Your task to perform on an android device: Search for the best rated coffee table on Target. Image 0: 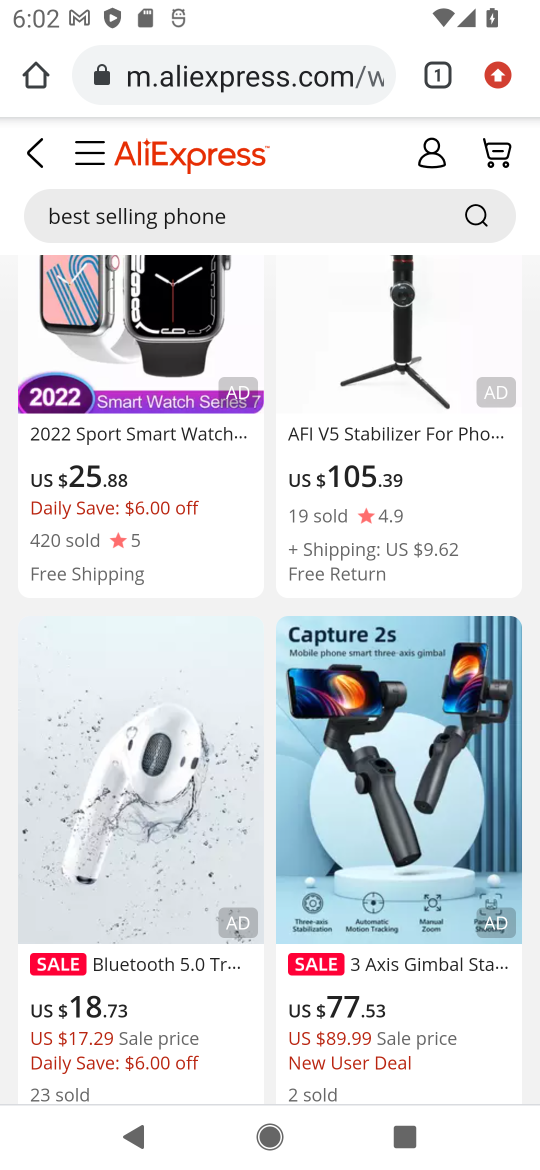
Step 0: click (307, 67)
Your task to perform on an android device: Search for the best rated coffee table on Target. Image 1: 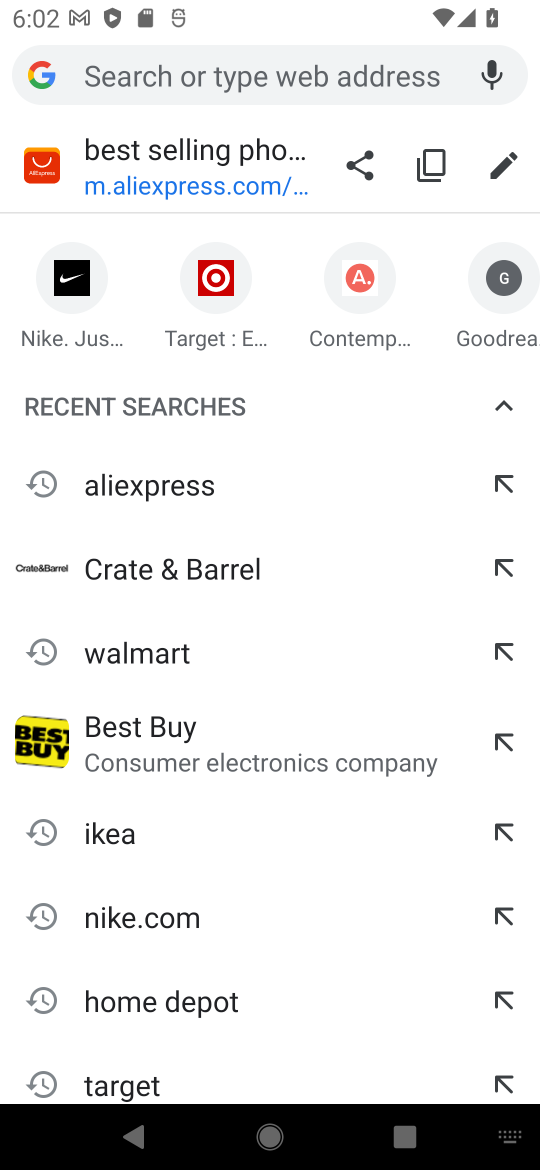
Step 1: type "target"
Your task to perform on an android device: Search for the best rated coffee table on Target. Image 2: 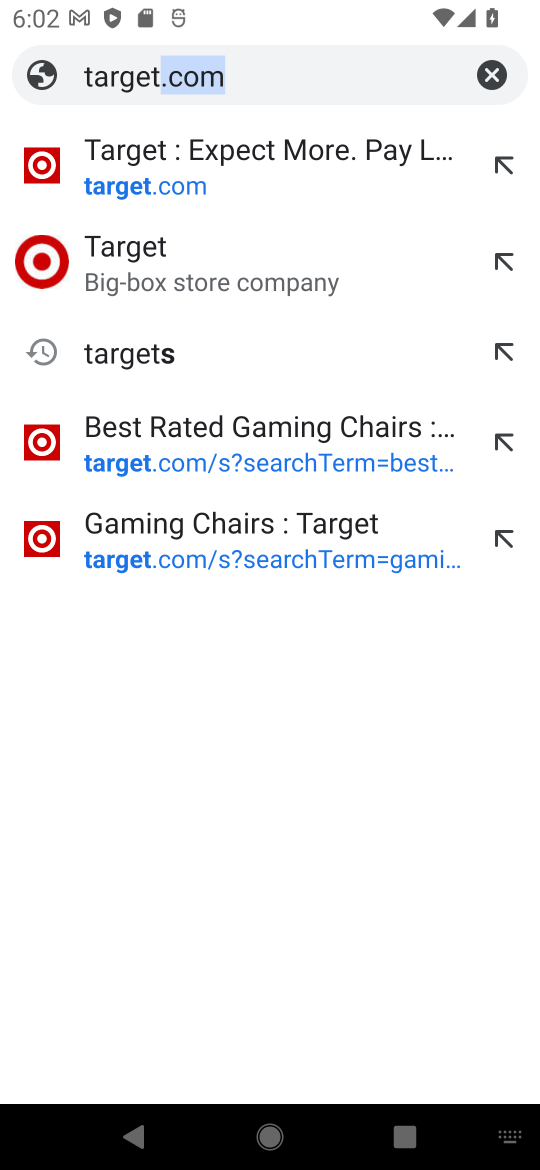
Step 2: press enter
Your task to perform on an android device: Search for the best rated coffee table on Target. Image 3: 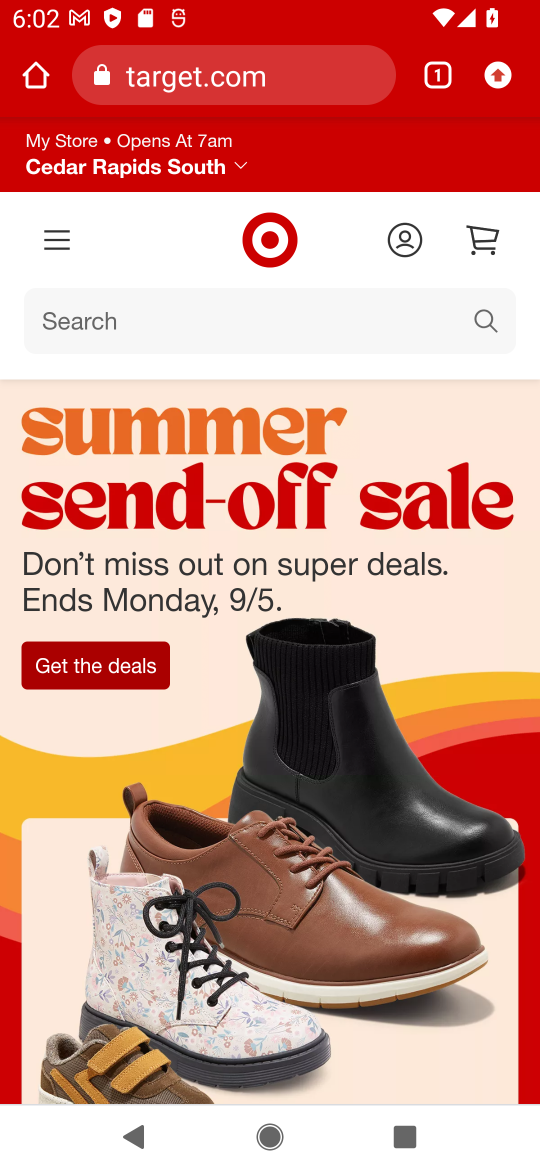
Step 3: click (288, 320)
Your task to perform on an android device: Search for the best rated coffee table on Target. Image 4: 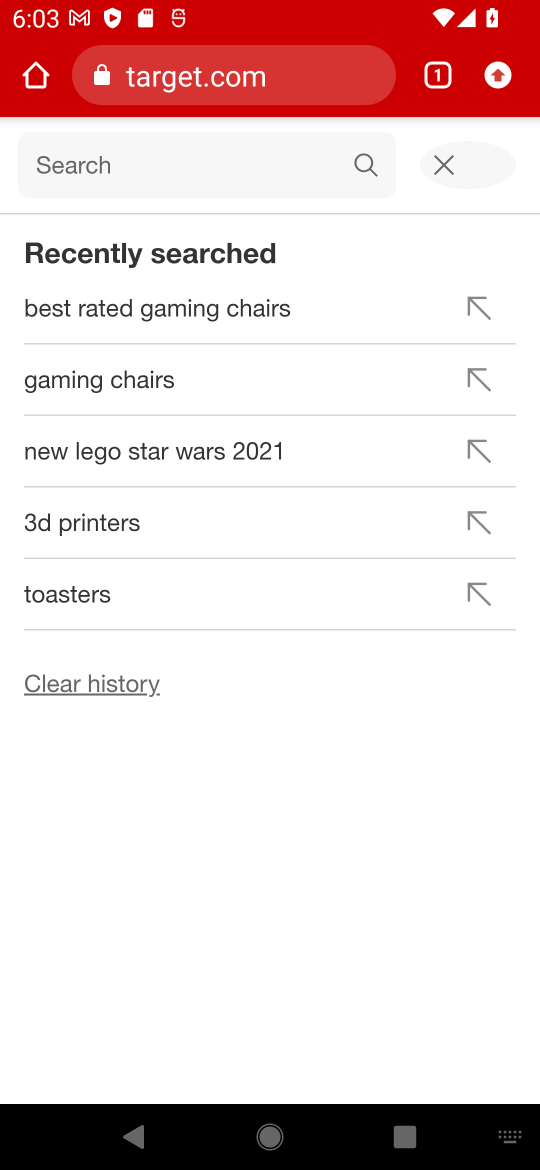
Step 4: type "best rated coffee table"
Your task to perform on an android device: Search for the best rated coffee table on Target. Image 5: 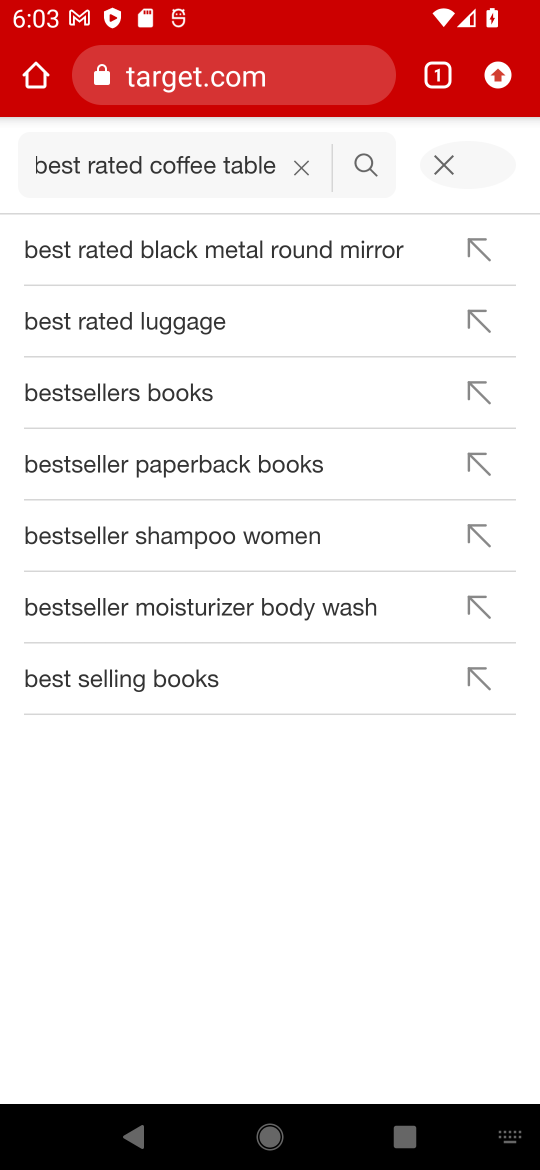
Step 5: click (366, 170)
Your task to perform on an android device: Search for the best rated coffee table on Target. Image 6: 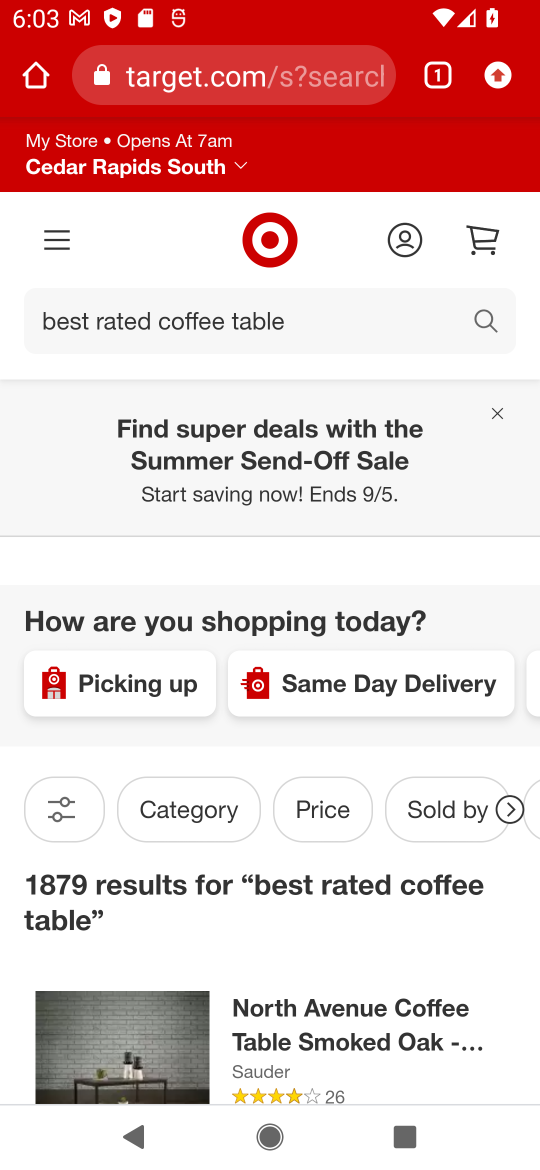
Step 6: click (67, 817)
Your task to perform on an android device: Search for the best rated coffee table on Target. Image 7: 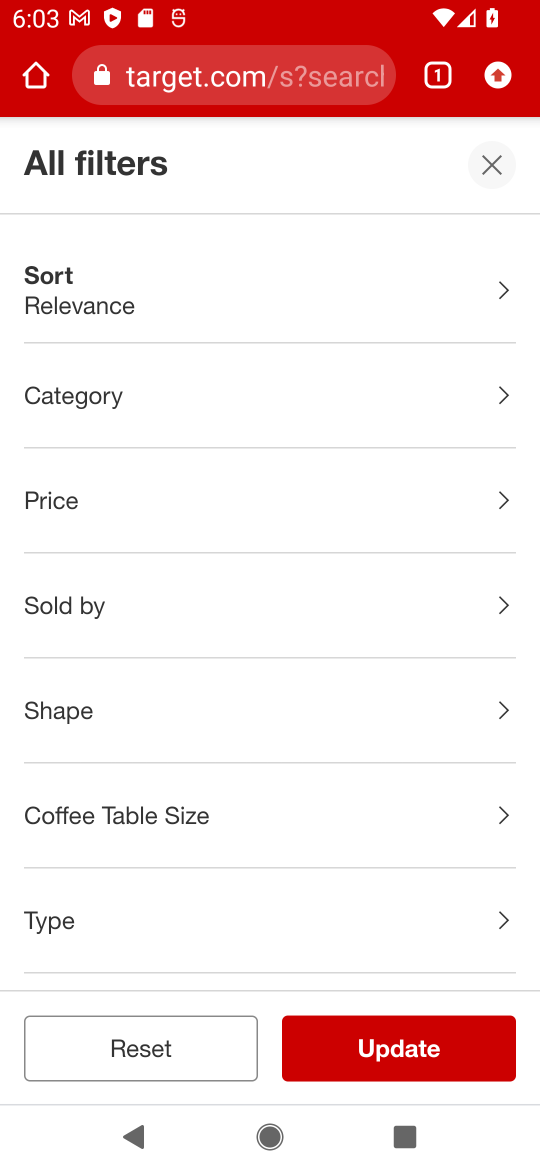
Step 7: click (408, 314)
Your task to perform on an android device: Search for the best rated coffee table on Target. Image 8: 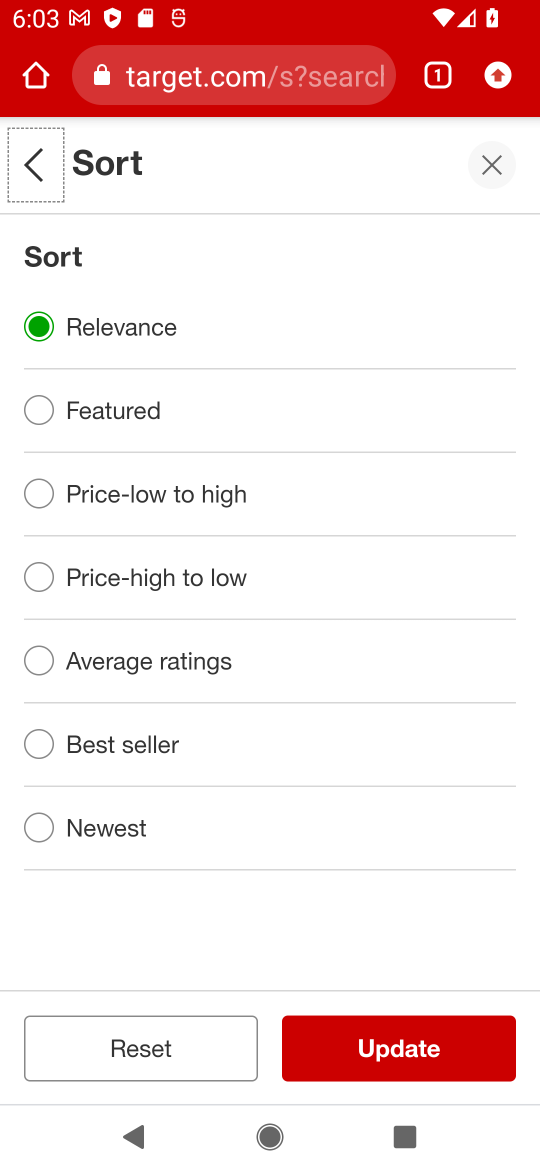
Step 8: task complete